Your task to perform on an android device: turn on airplane mode Image 0: 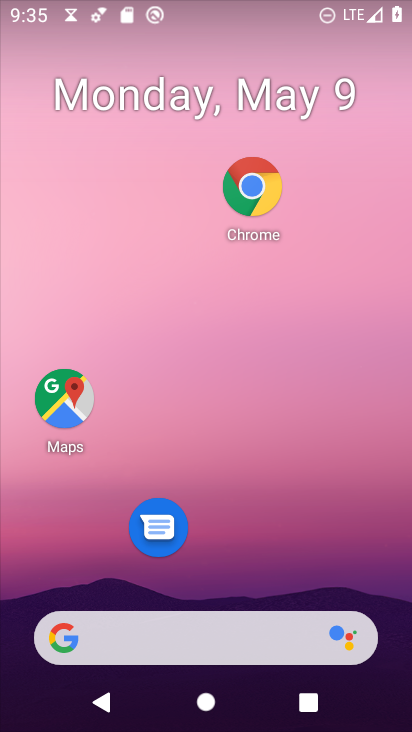
Step 0: drag from (297, 86) to (297, 630)
Your task to perform on an android device: turn on airplane mode Image 1: 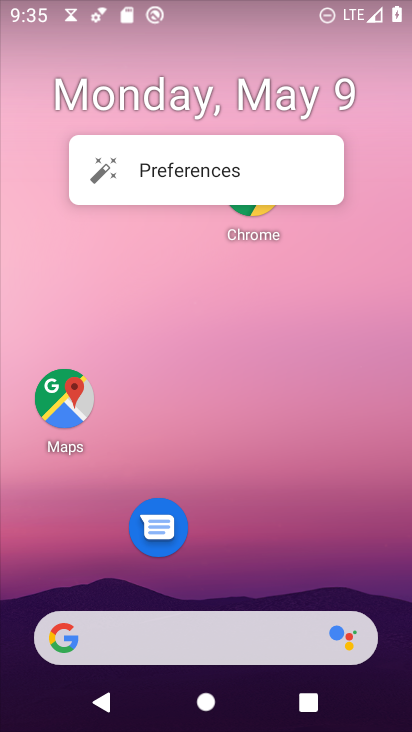
Step 1: drag from (269, 8) to (274, 548)
Your task to perform on an android device: turn on airplane mode Image 2: 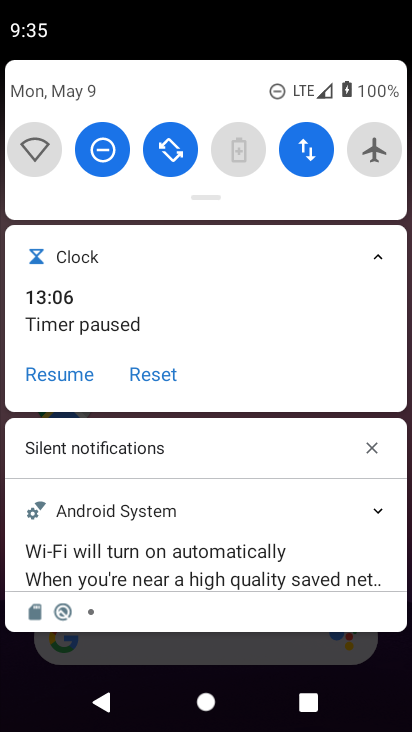
Step 2: click (378, 148)
Your task to perform on an android device: turn on airplane mode Image 3: 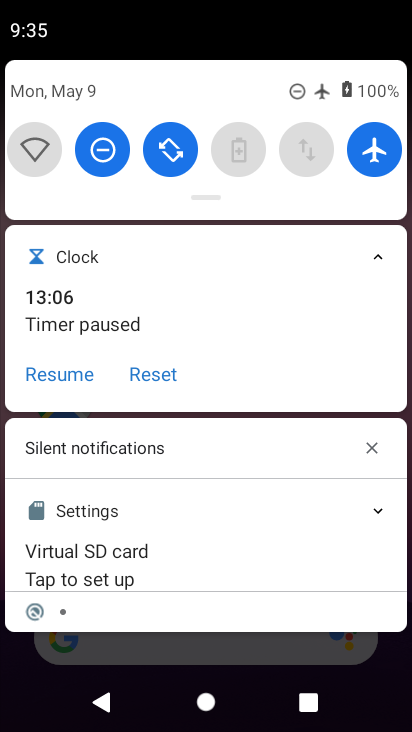
Step 3: task complete